Your task to perform on an android device: Open notification settings Image 0: 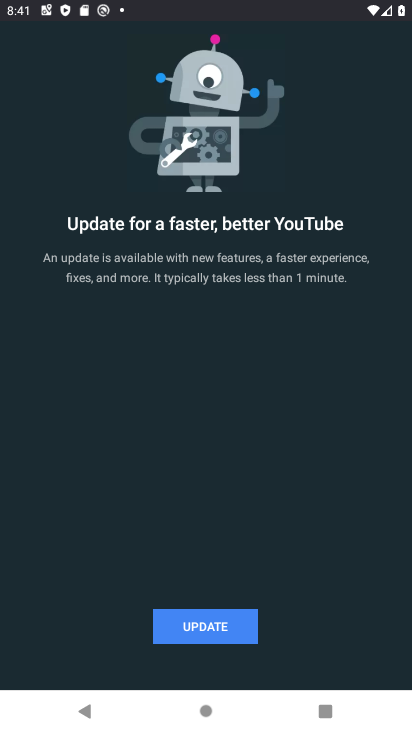
Step 0: press home button
Your task to perform on an android device: Open notification settings Image 1: 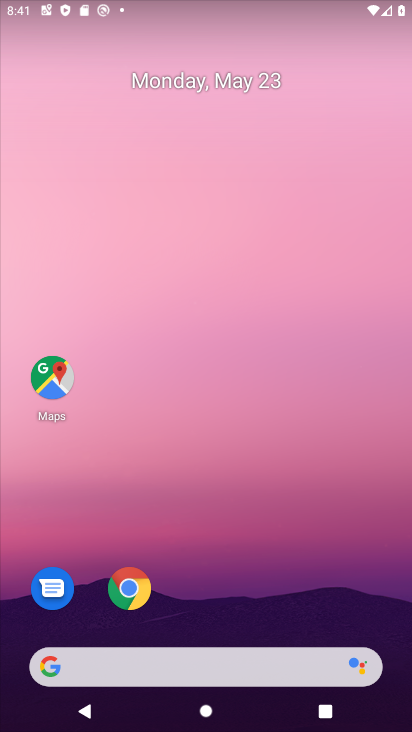
Step 1: drag from (400, 698) to (228, 215)
Your task to perform on an android device: Open notification settings Image 2: 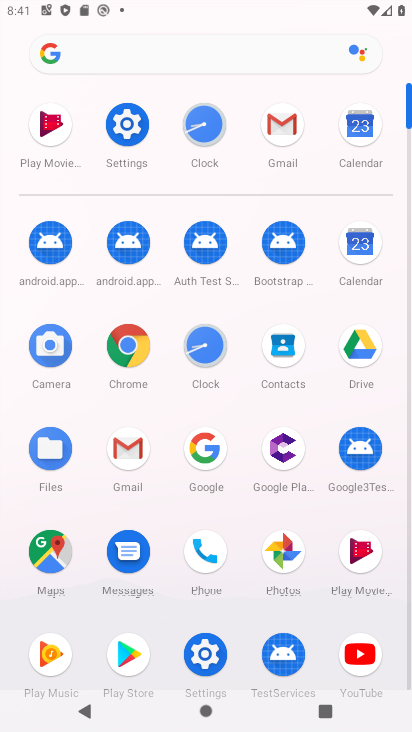
Step 2: click (123, 134)
Your task to perform on an android device: Open notification settings Image 3: 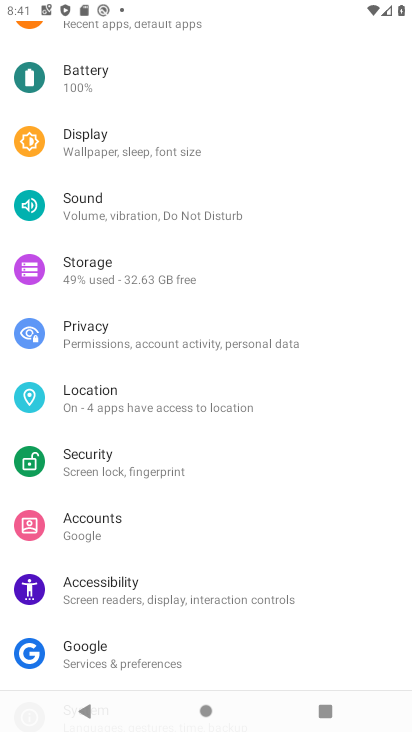
Step 3: drag from (294, 612) to (264, 306)
Your task to perform on an android device: Open notification settings Image 4: 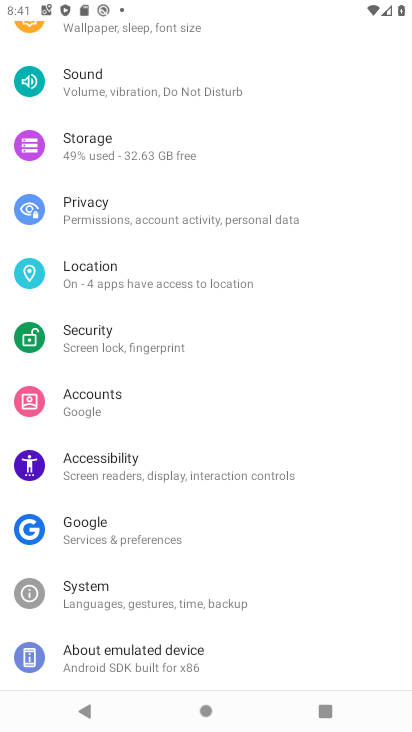
Step 4: drag from (331, 82) to (321, 656)
Your task to perform on an android device: Open notification settings Image 5: 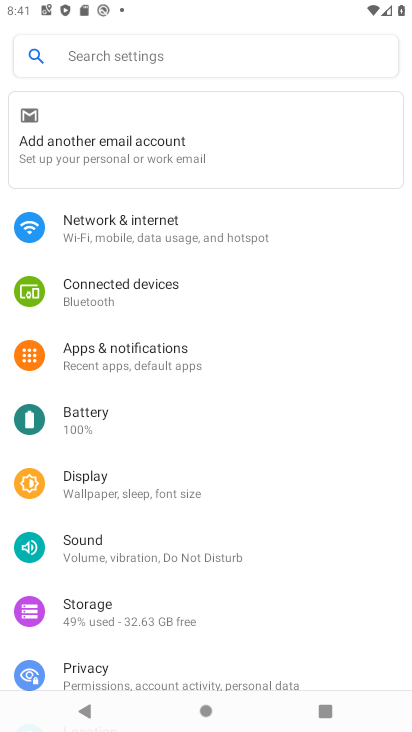
Step 5: click (92, 349)
Your task to perform on an android device: Open notification settings Image 6: 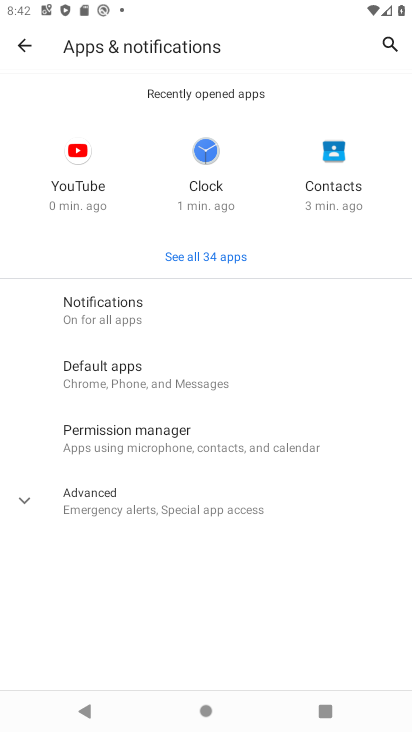
Step 6: click (65, 320)
Your task to perform on an android device: Open notification settings Image 7: 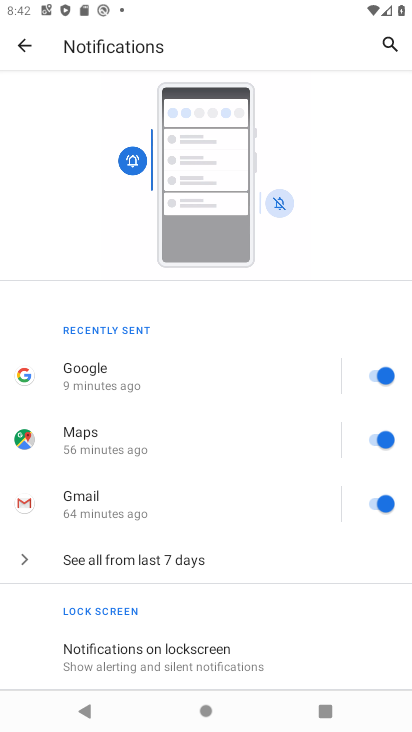
Step 7: drag from (268, 650) to (254, 279)
Your task to perform on an android device: Open notification settings Image 8: 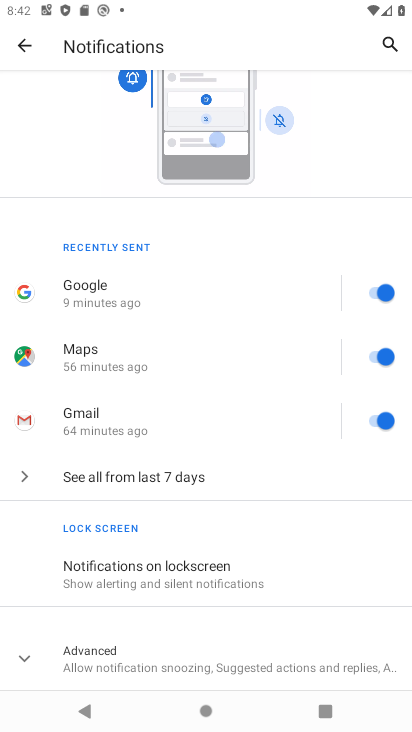
Step 8: click (27, 656)
Your task to perform on an android device: Open notification settings Image 9: 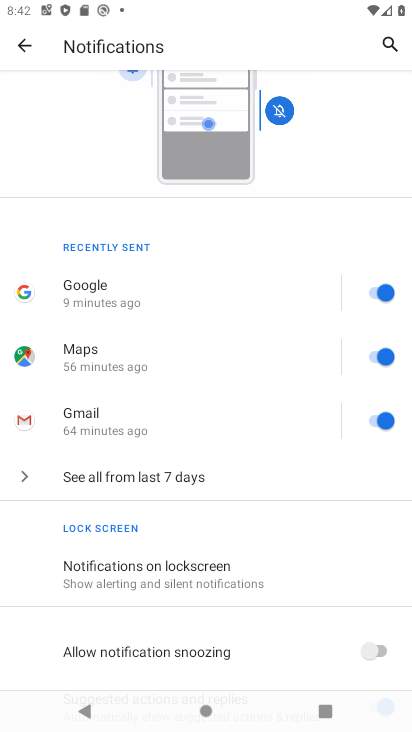
Step 9: task complete